Your task to perform on an android device: set the timer Image 0: 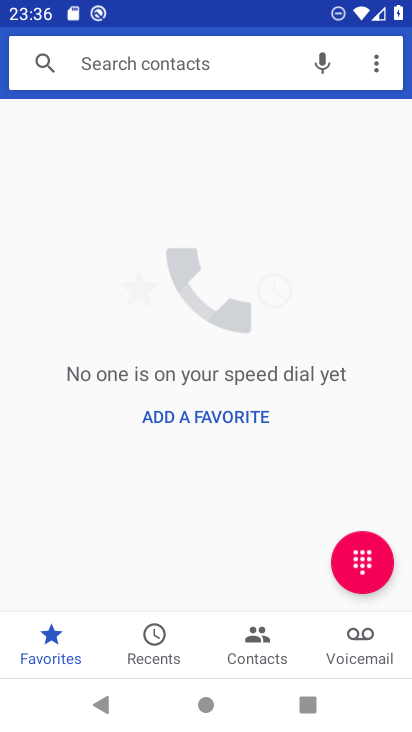
Step 0: press home button
Your task to perform on an android device: set the timer Image 1: 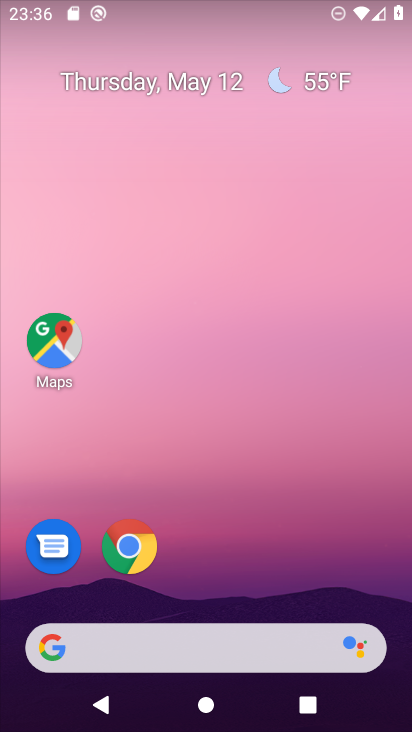
Step 1: drag from (226, 283) to (230, 60)
Your task to perform on an android device: set the timer Image 2: 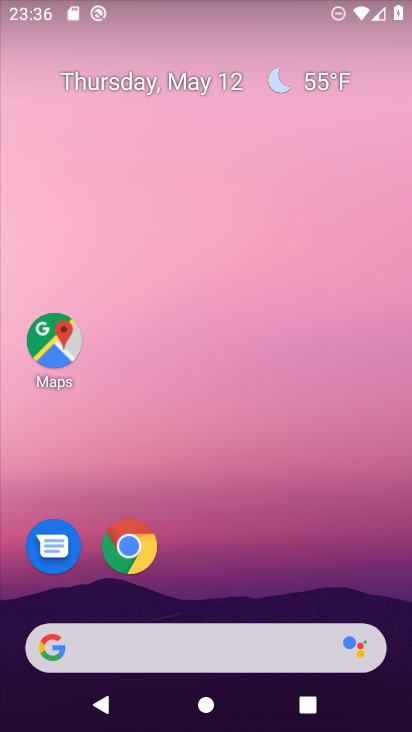
Step 2: drag from (208, 604) to (247, 180)
Your task to perform on an android device: set the timer Image 3: 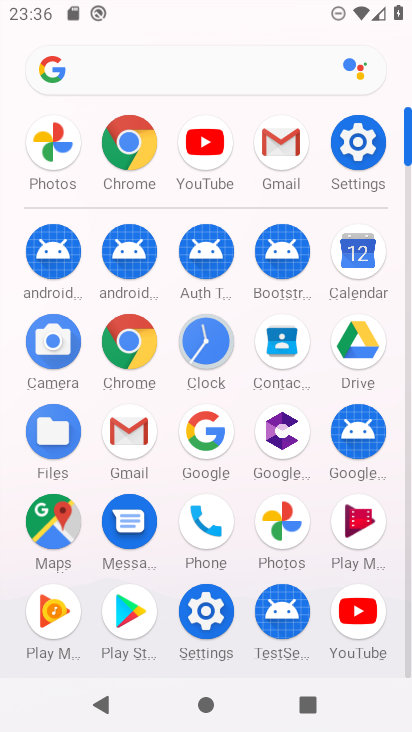
Step 3: click (215, 339)
Your task to perform on an android device: set the timer Image 4: 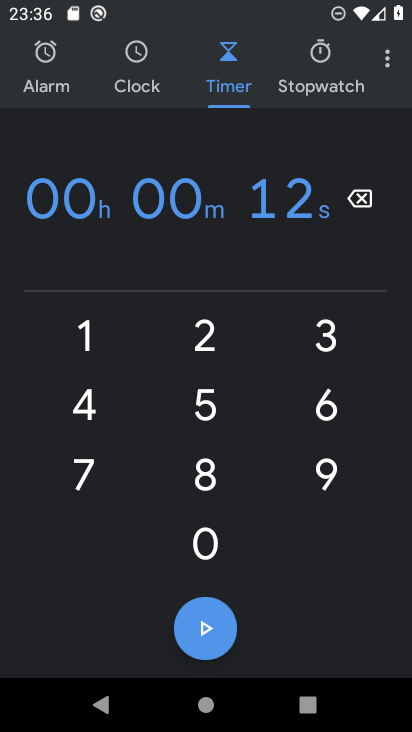
Step 4: click (203, 337)
Your task to perform on an android device: set the timer Image 5: 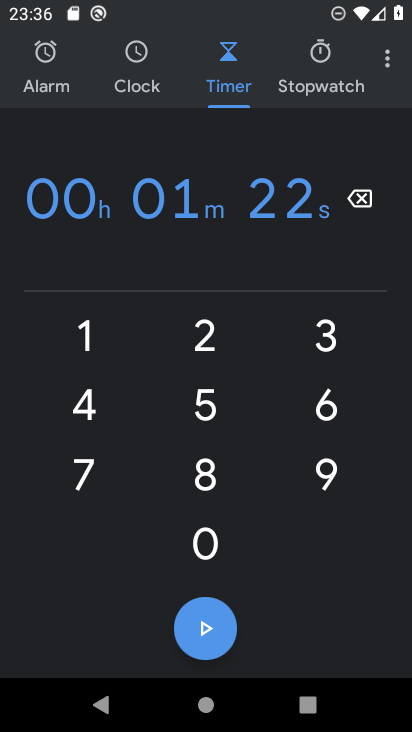
Step 5: click (200, 397)
Your task to perform on an android device: set the timer Image 6: 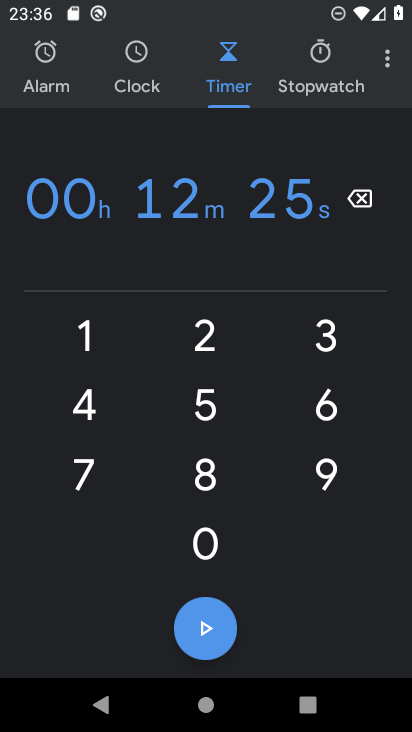
Step 6: task complete